Your task to perform on an android device: Search for alienware aurora on newegg, select the first entry, add it to the cart, then select checkout. Image 0: 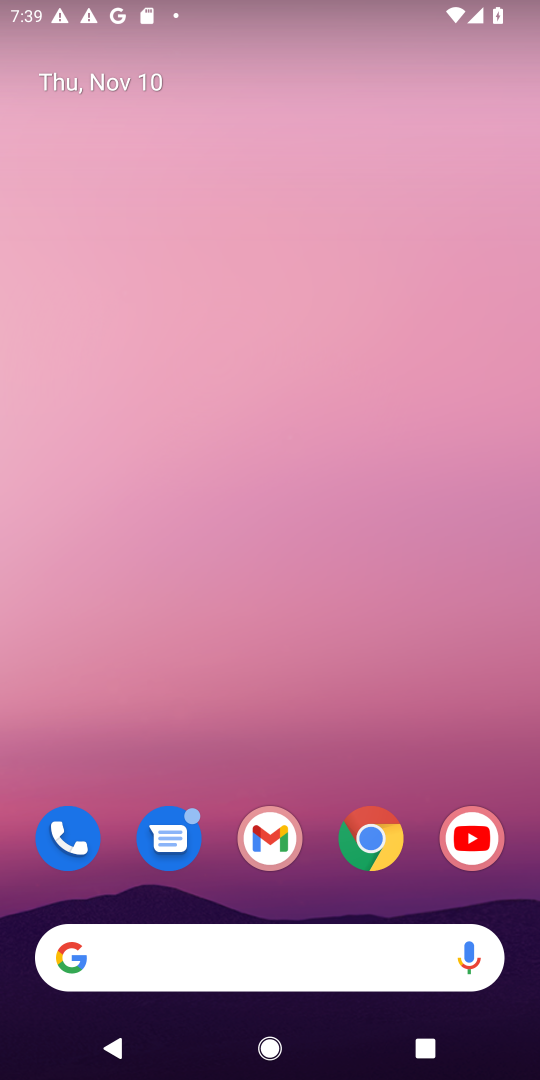
Step 0: drag from (353, 797) to (336, 0)
Your task to perform on an android device: Search for alienware aurora on newegg, select the first entry, add it to the cart, then select checkout. Image 1: 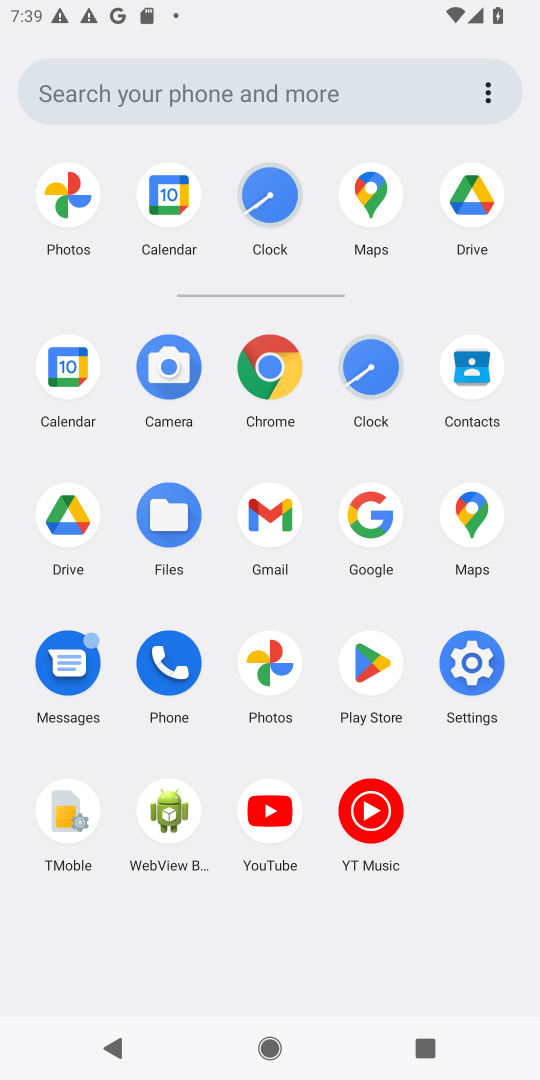
Step 1: click (267, 369)
Your task to perform on an android device: Search for alienware aurora on newegg, select the first entry, add it to the cart, then select checkout. Image 2: 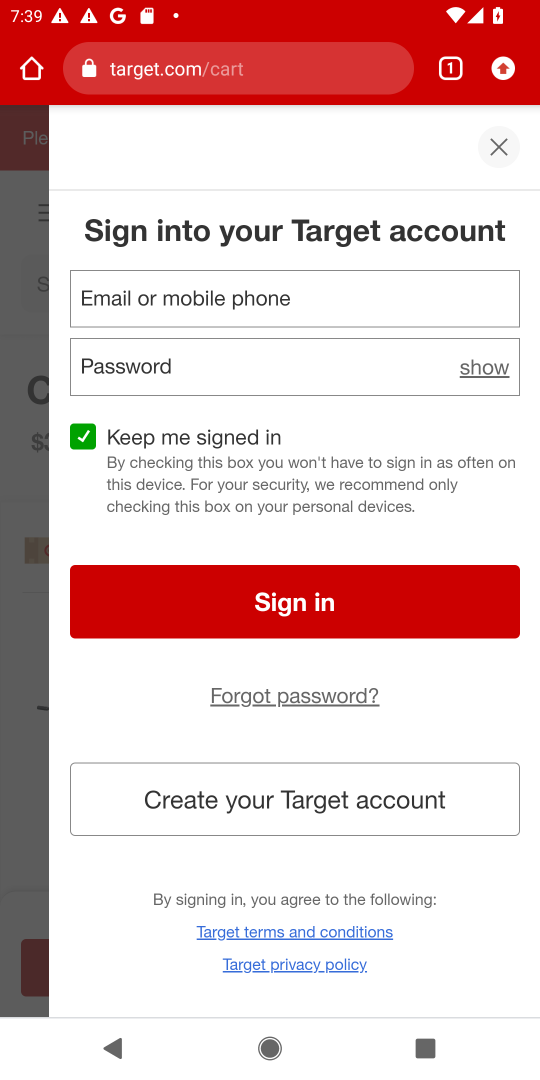
Step 2: click (274, 68)
Your task to perform on an android device: Search for alienware aurora on newegg, select the first entry, add it to the cart, then select checkout. Image 3: 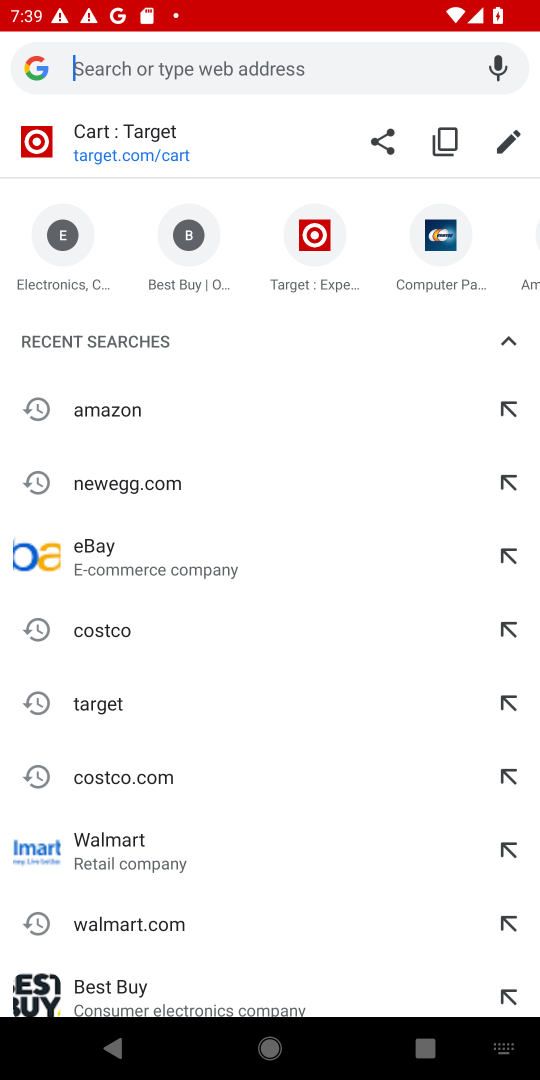
Step 3: type "newegg.com"
Your task to perform on an android device: Search for alienware aurora on newegg, select the first entry, add it to the cart, then select checkout. Image 4: 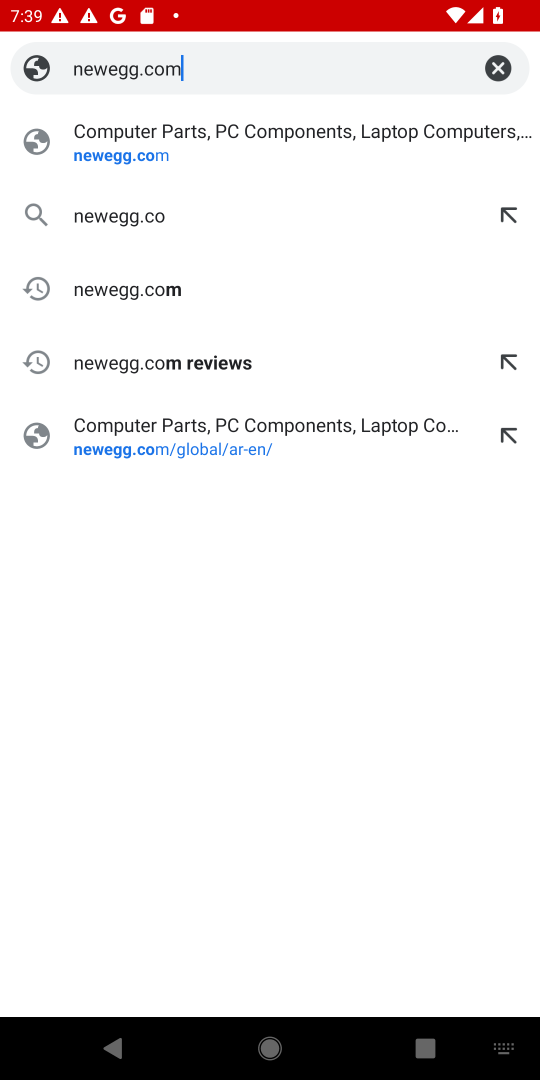
Step 4: press enter
Your task to perform on an android device: Search for alienware aurora on newegg, select the first entry, add it to the cart, then select checkout. Image 5: 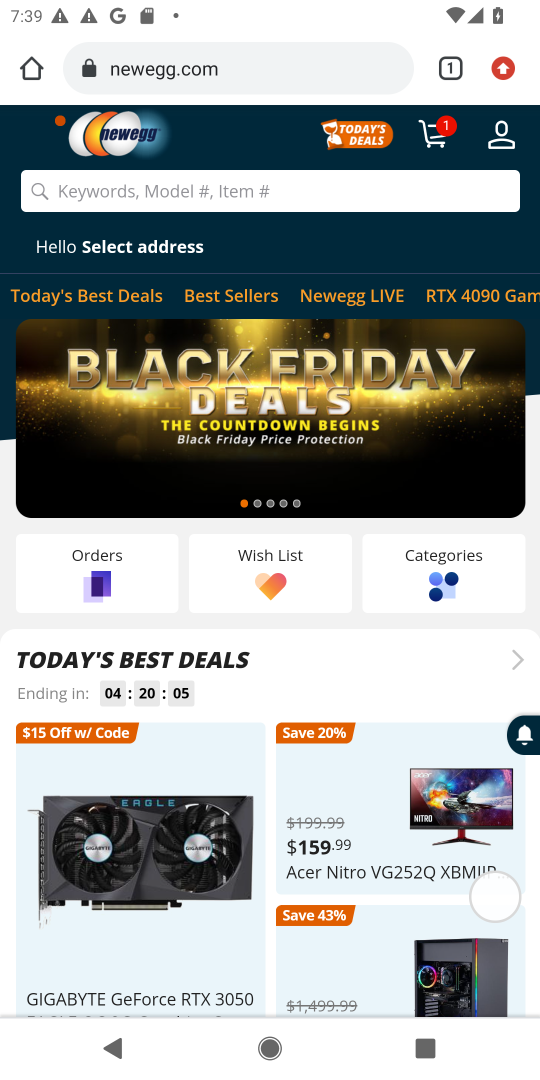
Step 5: click (337, 185)
Your task to perform on an android device: Search for alienware aurora on newegg, select the first entry, add it to the cart, then select checkout. Image 6: 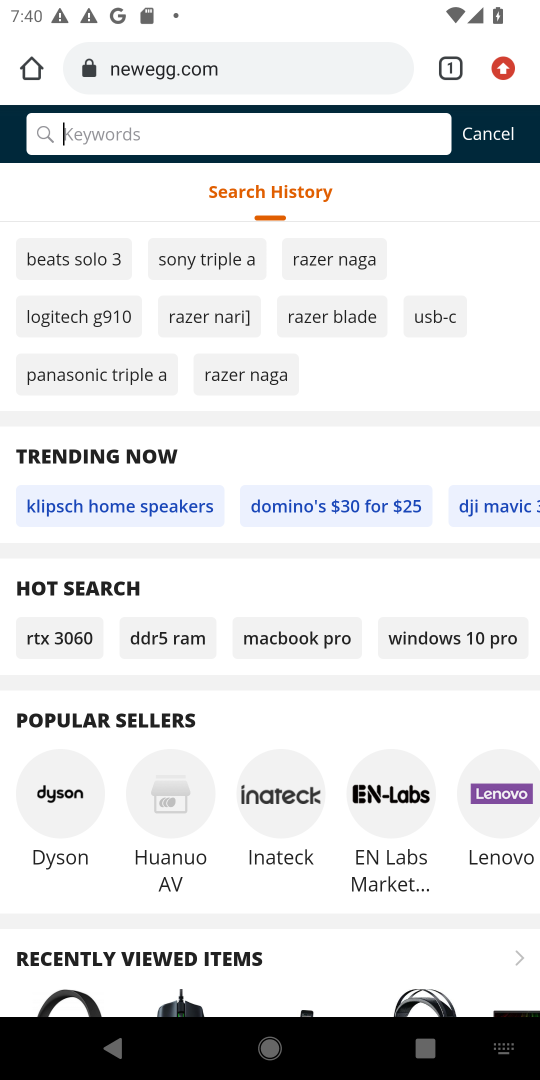
Step 6: type "alienware aurora"
Your task to perform on an android device: Search for alienware aurora on newegg, select the first entry, add it to the cart, then select checkout. Image 7: 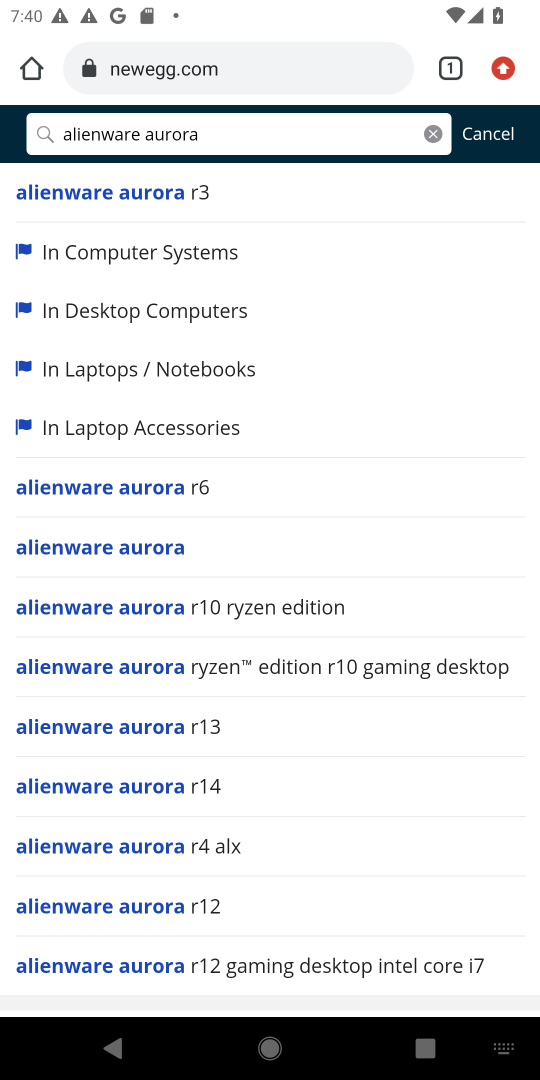
Step 7: press enter
Your task to perform on an android device: Search for alienware aurora on newegg, select the first entry, add it to the cart, then select checkout. Image 8: 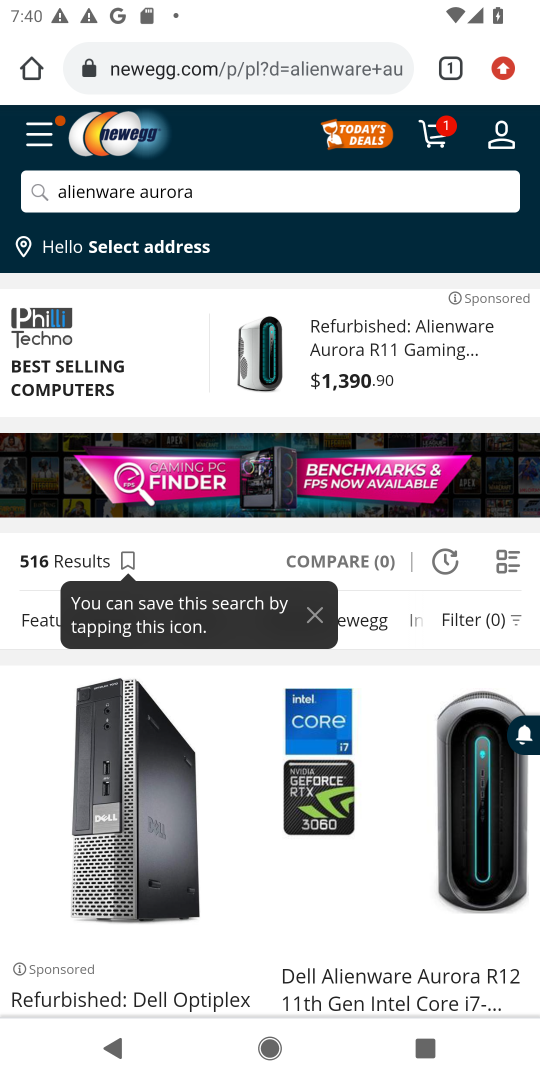
Step 8: drag from (226, 845) to (299, 338)
Your task to perform on an android device: Search for alienware aurora on newegg, select the first entry, add it to the cart, then select checkout. Image 9: 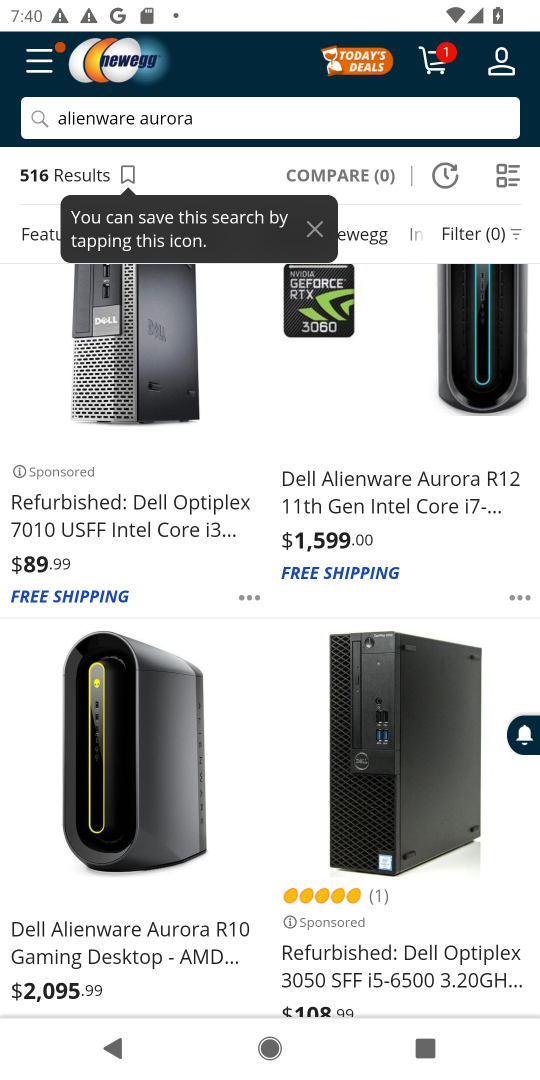
Step 9: drag from (271, 379) to (295, 508)
Your task to perform on an android device: Search for alienware aurora on newegg, select the first entry, add it to the cart, then select checkout. Image 10: 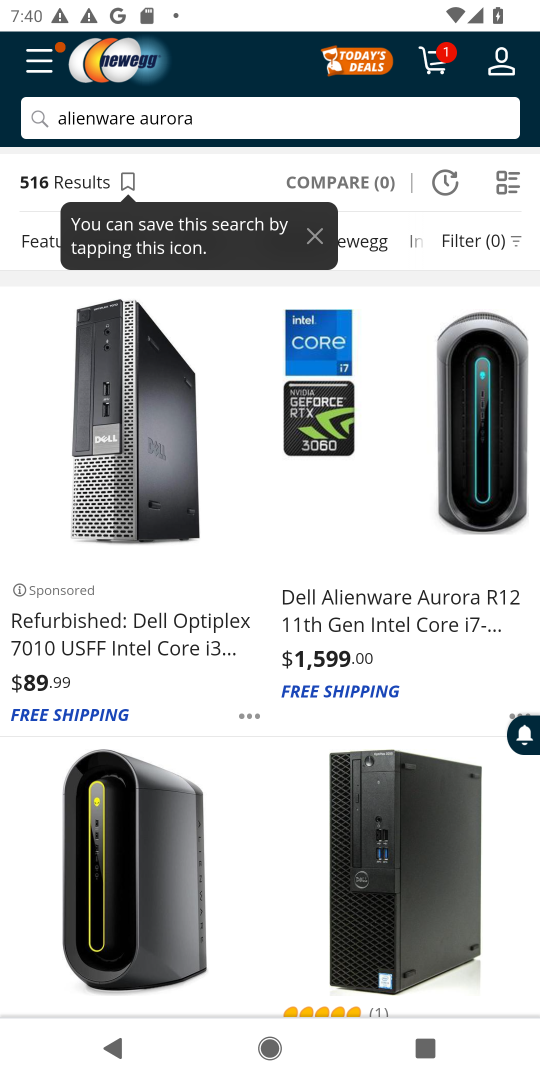
Step 10: click (399, 527)
Your task to perform on an android device: Search for alienware aurora on newegg, select the first entry, add it to the cart, then select checkout. Image 11: 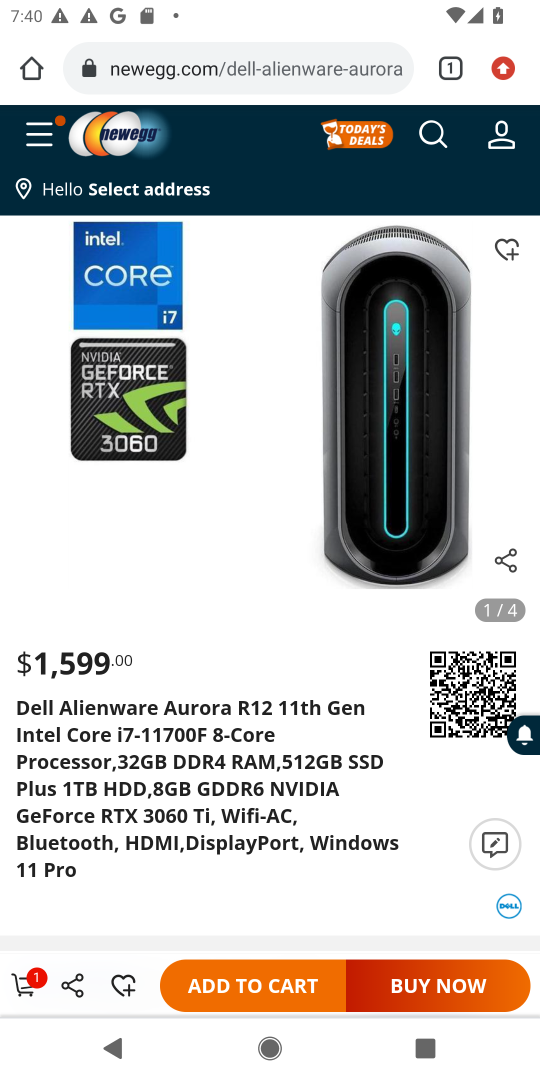
Step 11: click (248, 986)
Your task to perform on an android device: Search for alienware aurora on newegg, select the first entry, add it to the cart, then select checkout. Image 12: 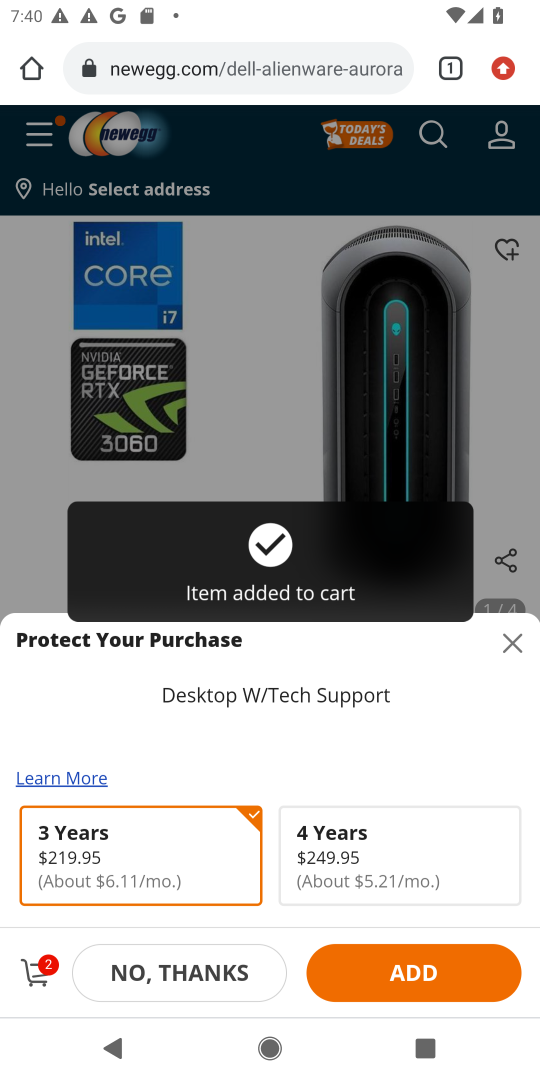
Step 12: click (20, 984)
Your task to perform on an android device: Search for alienware aurora on newegg, select the first entry, add it to the cart, then select checkout. Image 13: 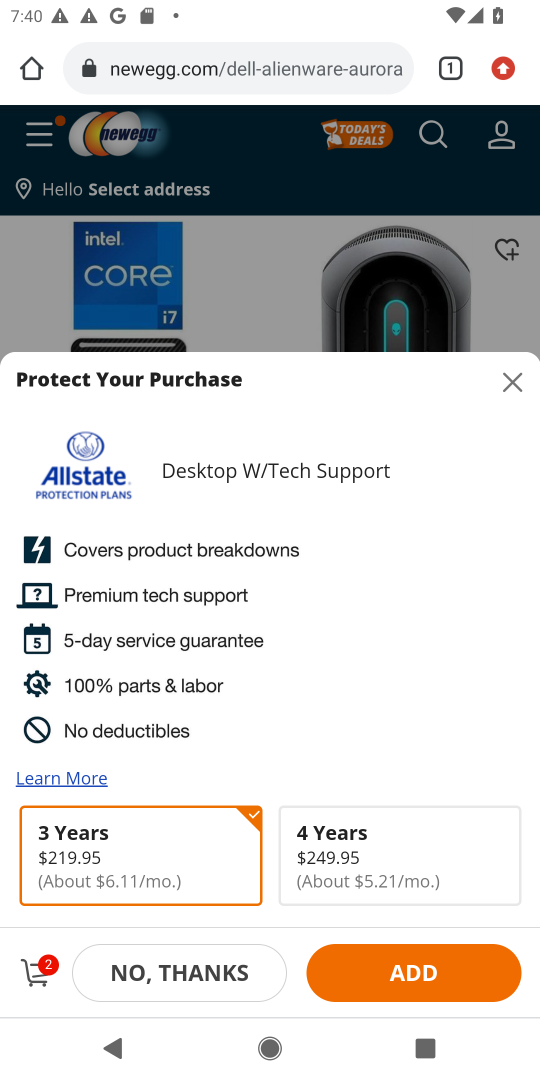
Step 13: click (41, 969)
Your task to perform on an android device: Search for alienware aurora on newegg, select the first entry, add it to the cart, then select checkout. Image 14: 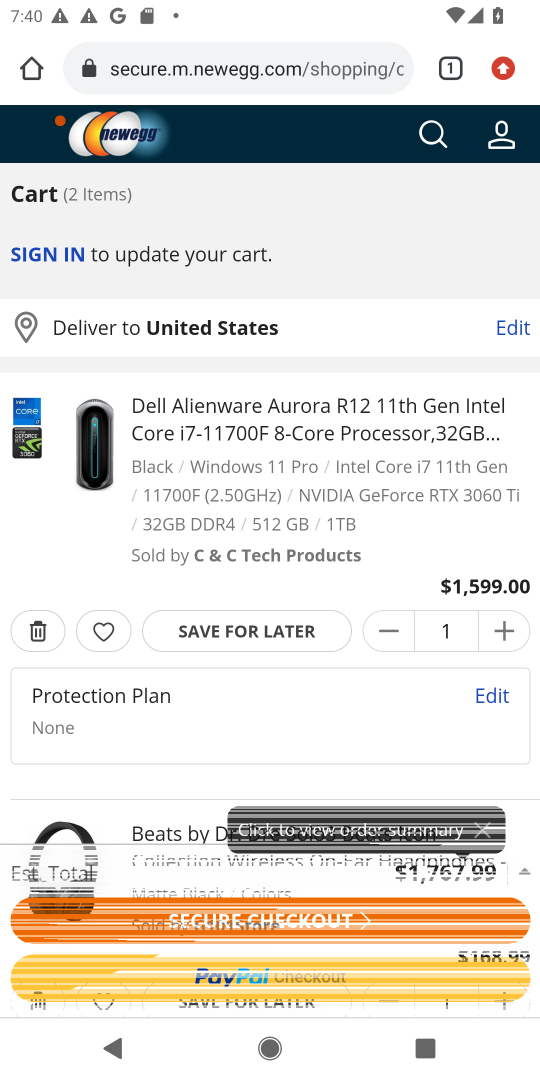
Step 14: click (137, 916)
Your task to perform on an android device: Search for alienware aurora on newegg, select the first entry, add it to the cart, then select checkout. Image 15: 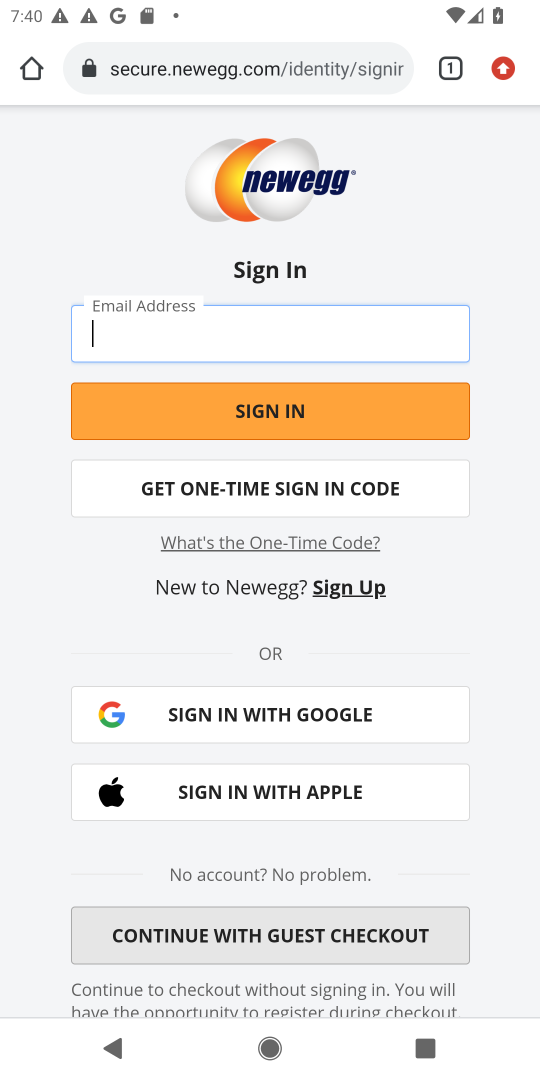
Step 15: task complete